Your task to perform on an android device: Open wifi settings Image 0: 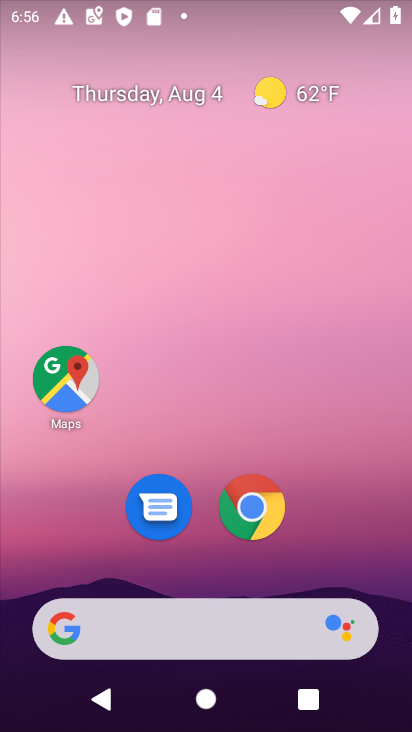
Step 0: drag from (398, 601) to (255, 7)
Your task to perform on an android device: Open wifi settings Image 1: 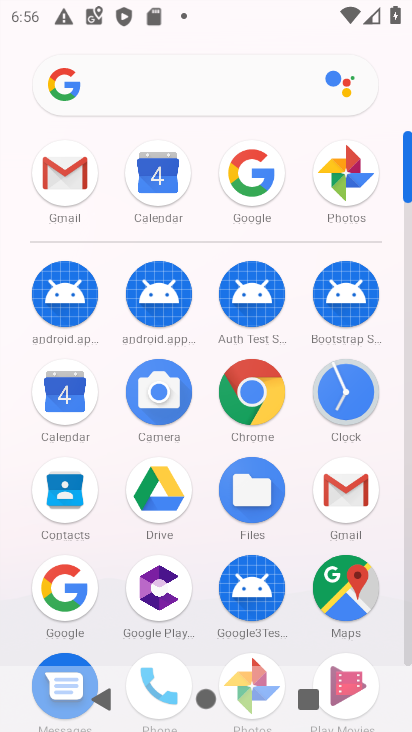
Step 1: drag from (192, 580) to (198, 107)
Your task to perform on an android device: Open wifi settings Image 2: 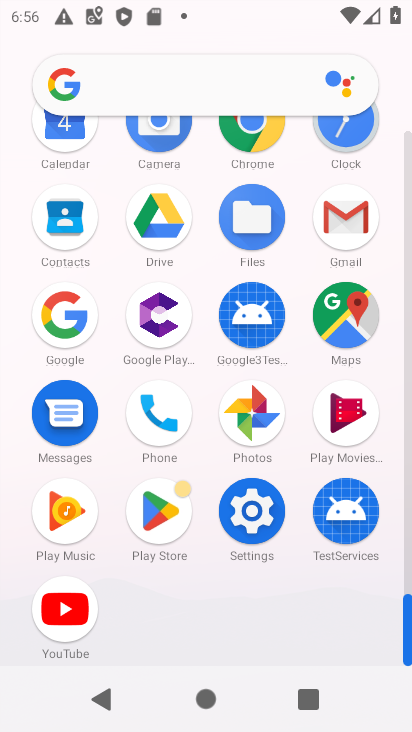
Step 2: click (236, 513)
Your task to perform on an android device: Open wifi settings Image 3: 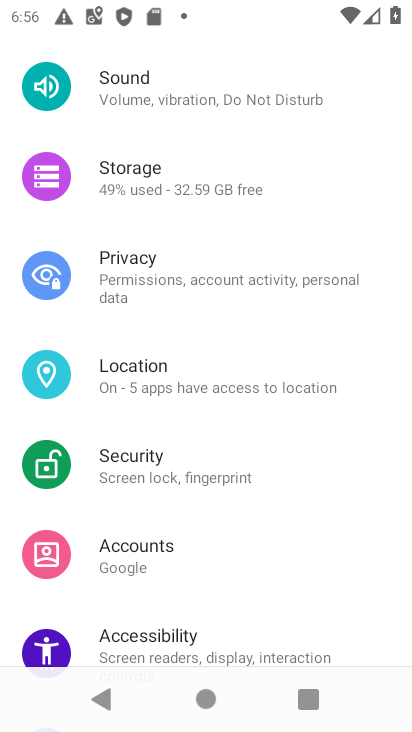
Step 3: drag from (130, 145) to (74, 726)
Your task to perform on an android device: Open wifi settings Image 4: 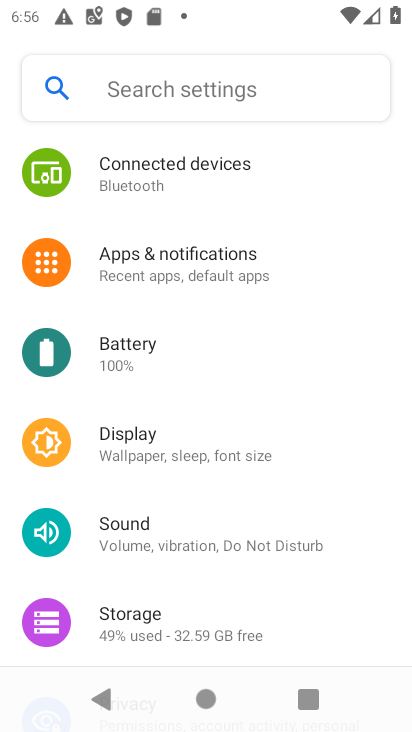
Step 4: drag from (141, 226) to (195, 729)
Your task to perform on an android device: Open wifi settings Image 5: 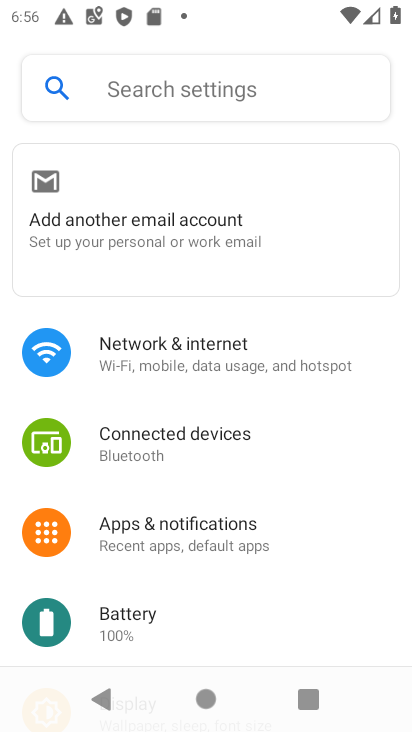
Step 5: click (166, 373)
Your task to perform on an android device: Open wifi settings Image 6: 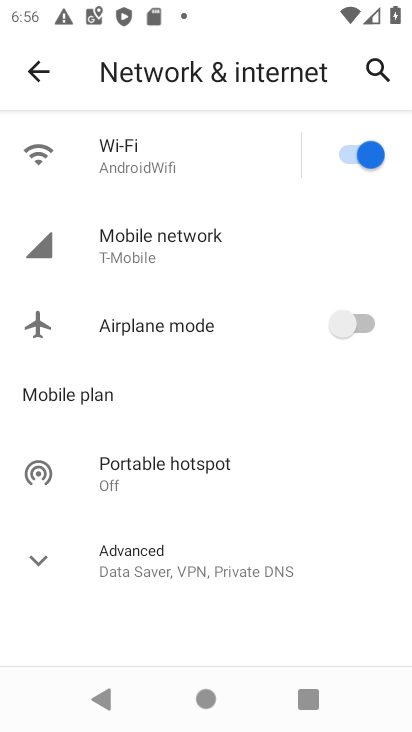
Step 6: click (129, 168)
Your task to perform on an android device: Open wifi settings Image 7: 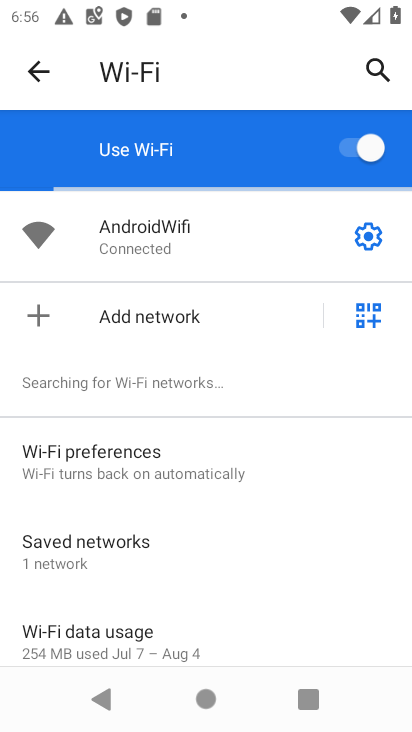
Step 7: task complete